Your task to perform on an android device: Search for pizza restaurants on Maps Image 0: 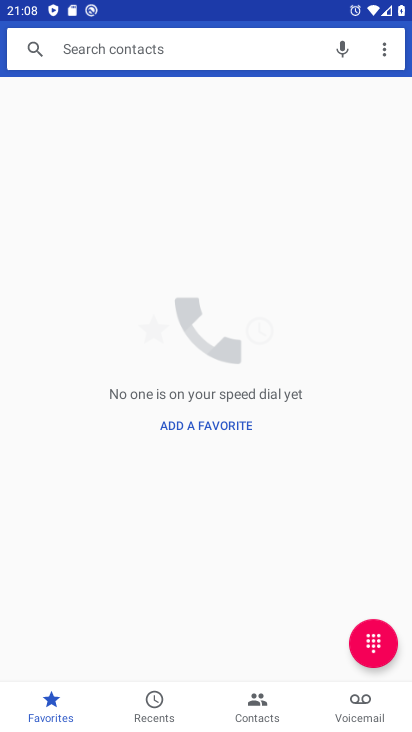
Step 0: press home button
Your task to perform on an android device: Search for pizza restaurants on Maps Image 1: 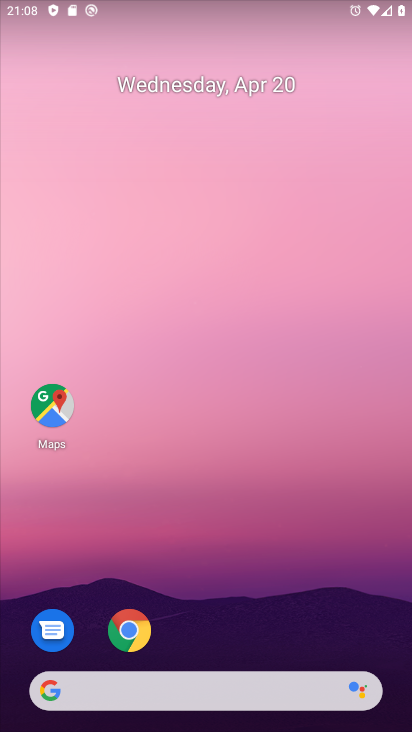
Step 1: click (55, 415)
Your task to perform on an android device: Search for pizza restaurants on Maps Image 2: 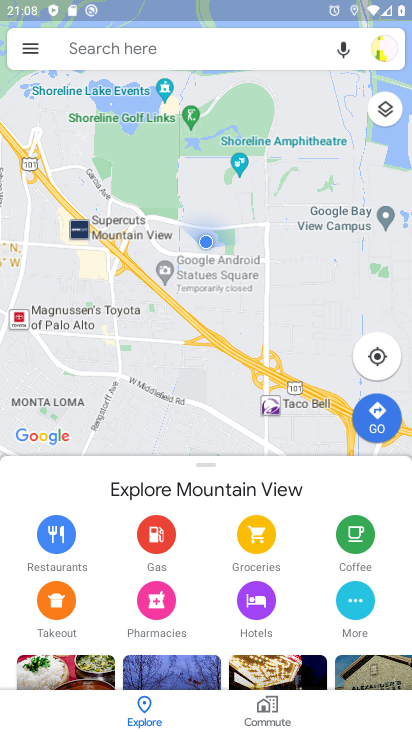
Step 2: click (121, 42)
Your task to perform on an android device: Search for pizza restaurants on Maps Image 3: 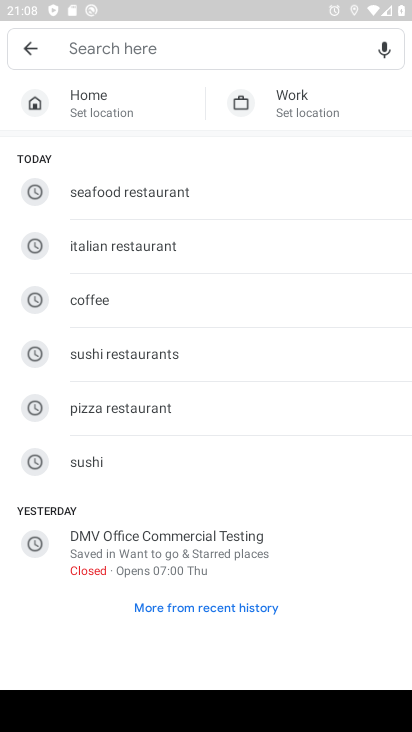
Step 3: click (160, 395)
Your task to perform on an android device: Search for pizza restaurants on Maps Image 4: 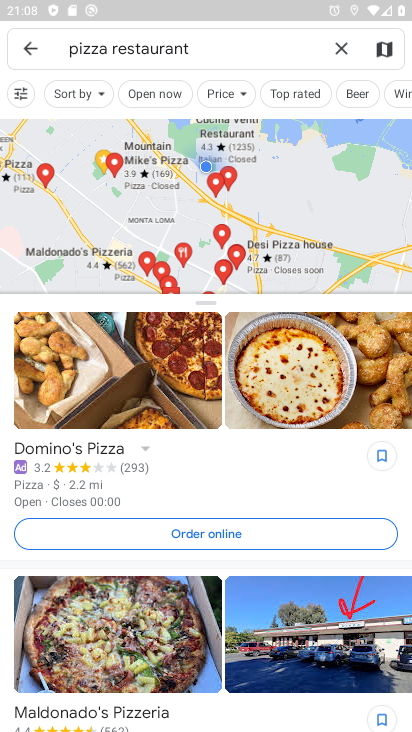
Step 4: task complete